Your task to perform on an android device: Search for Italian restaurants on Maps Image 0: 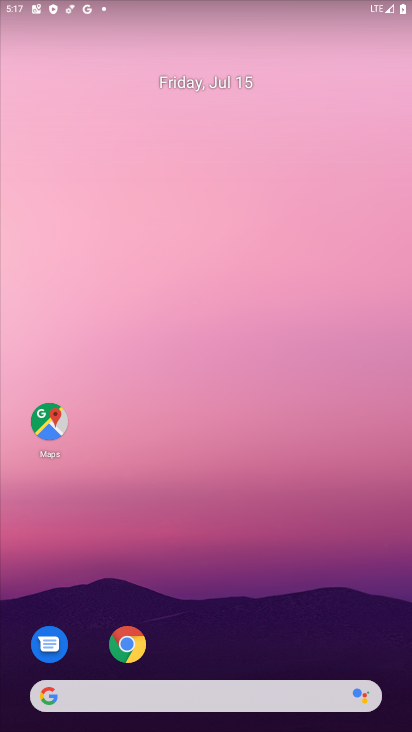
Step 0: click (52, 428)
Your task to perform on an android device: Search for Italian restaurants on Maps Image 1: 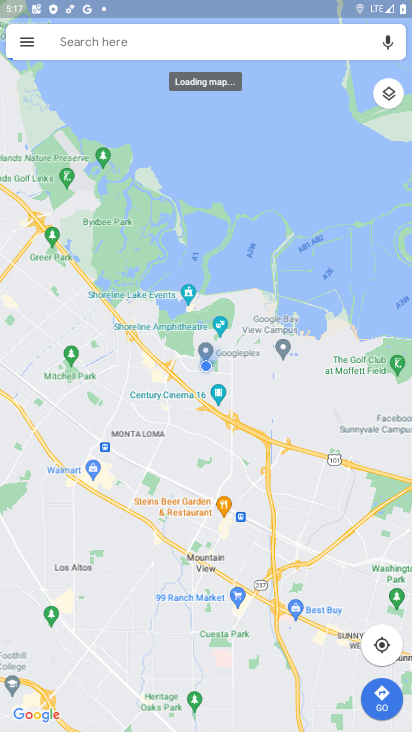
Step 1: click (144, 39)
Your task to perform on an android device: Search for Italian restaurants on Maps Image 2: 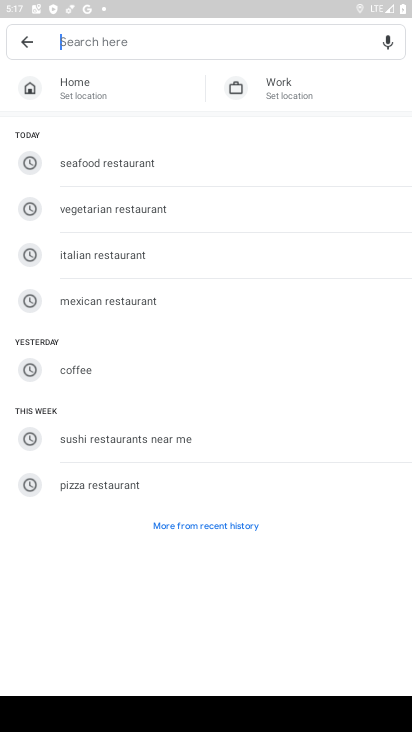
Step 2: click (87, 246)
Your task to perform on an android device: Search for Italian restaurants on Maps Image 3: 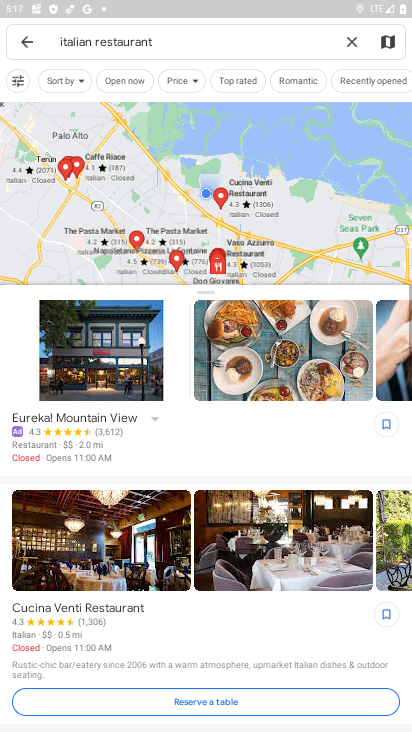
Step 3: task complete